Your task to perform on an android device: turn off translation in the chrome app Image 0: 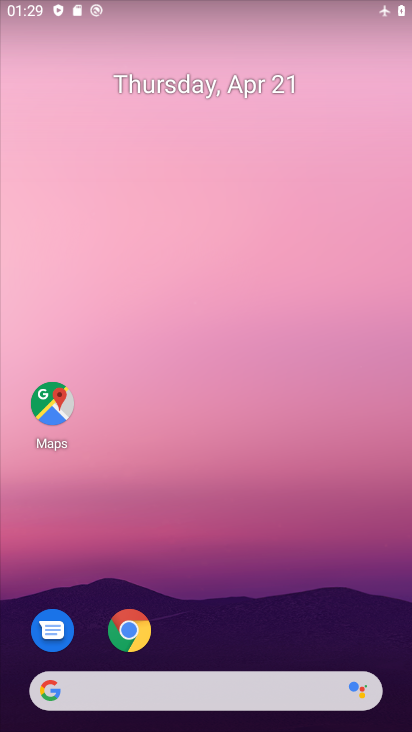
Step 0: click (138, 638)
Your task to perform on an android device: turn off translation in the chrome app Image 1: 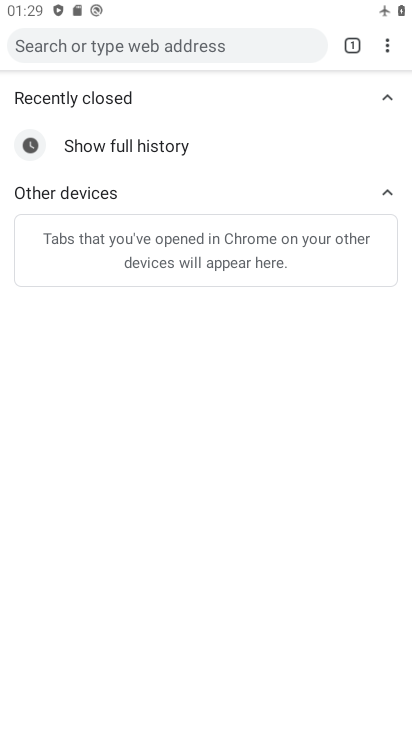
Step 1: click (385, 56)
Your task to perform on an android device: turn off translation in the chrome app Image 2: 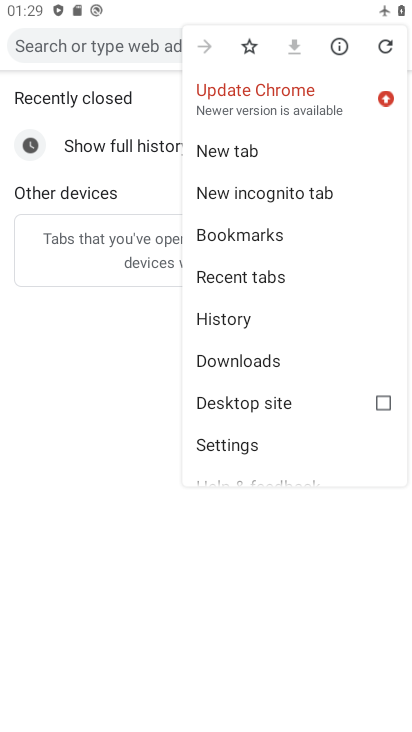
Step 2: click (252, 437)
Your task to perform on an android device: turn off translation in the chrome app Image 3: 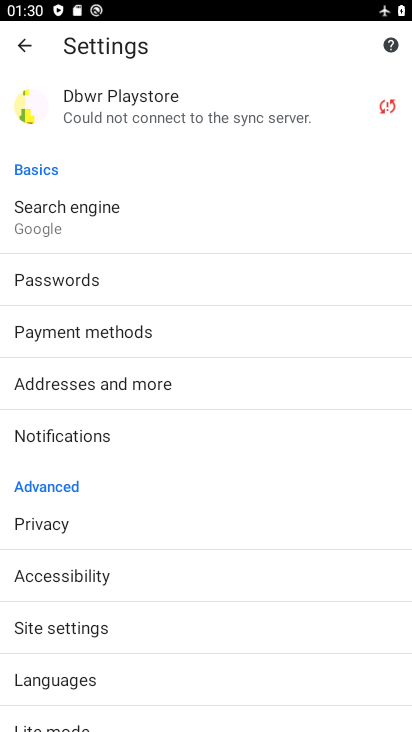
Step 3: click (102, 681)
Your task to perform on an android device: turn off translation in the chrome app Image 4: 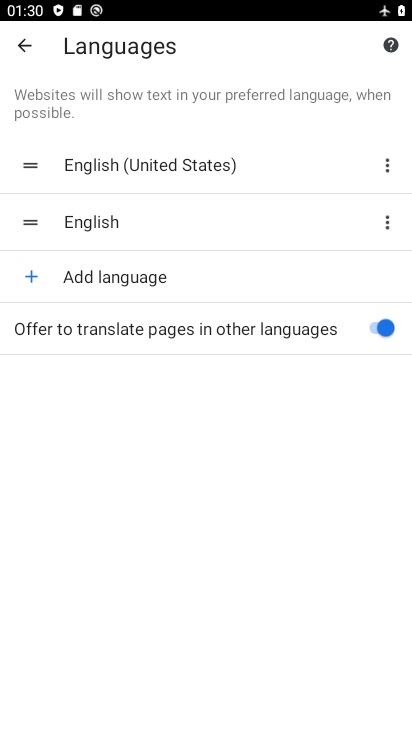
Step 4: click (374, 341)
Your task to perform on an android device: turn off translation in the chrome app Image 5: 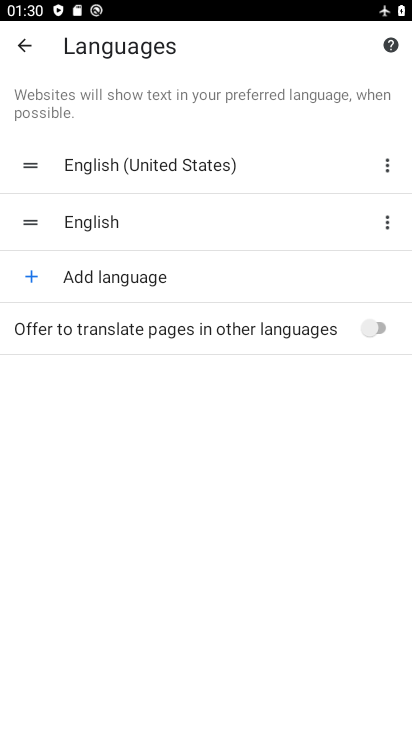
Step 5: task complete